Your task to perform on an android device: Go to Yahoo.com Image 0: 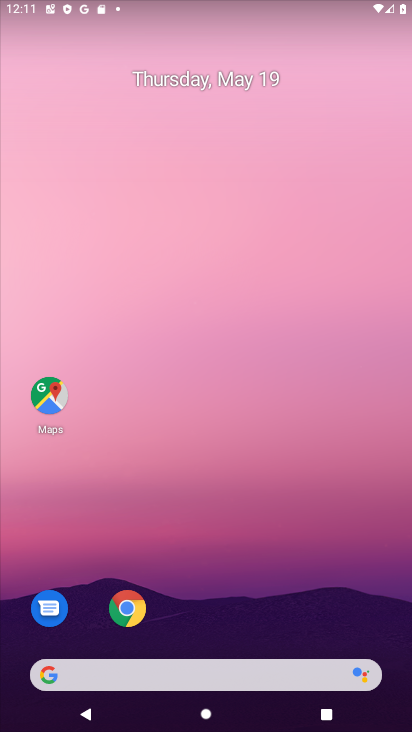
Step 0: click (124, 601)
Your task to perform on an android device: Go to Yahoo.com Image 1: 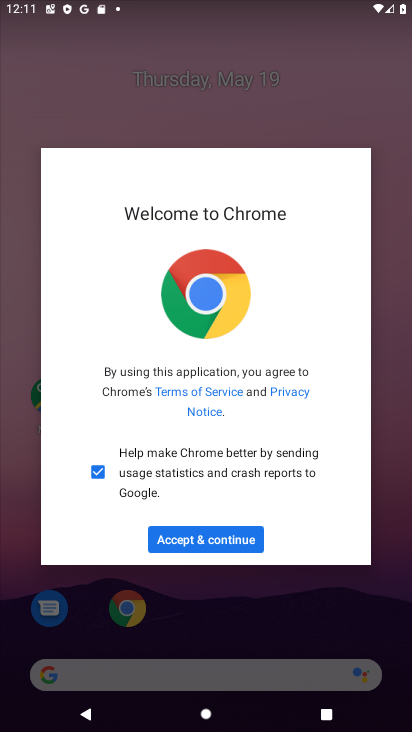
Step 1: click (207, 537)
Your task to perform on an android device: Go to Yahoo.com Image 2: 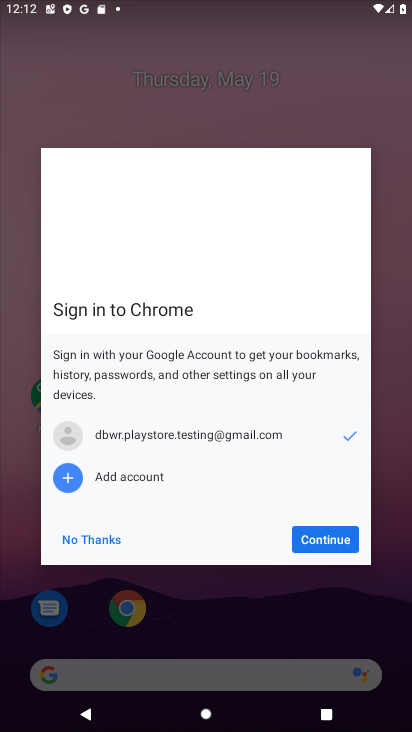
Step 2: click (308, 538)
Your task to perform on an android device: Go to Yahoo.com Image 3: 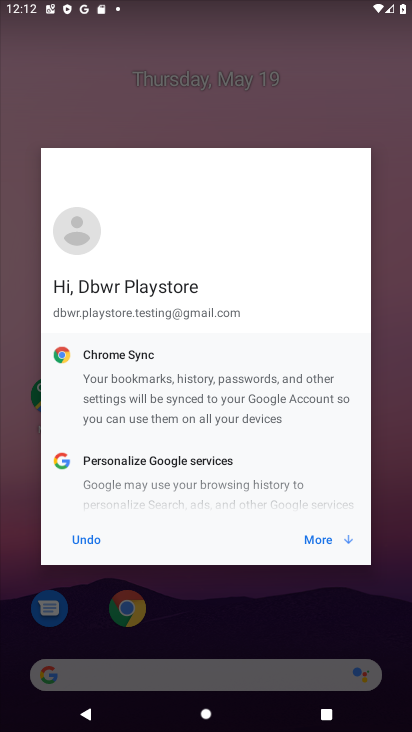
Step 3: click (312, 531)
Your task to perform on an android device: Go to Yahoo.com Image 4: 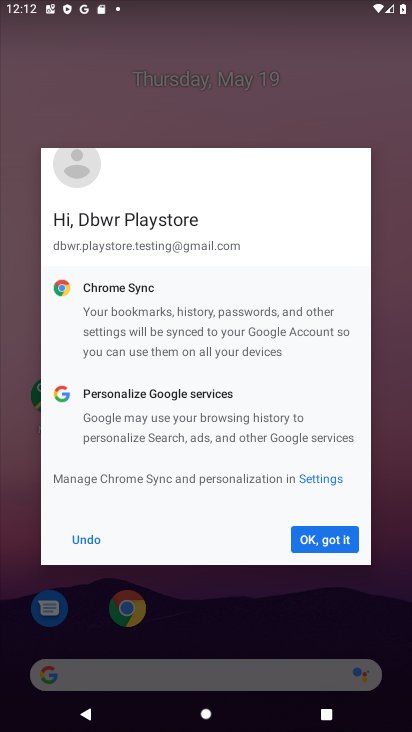
Step 4: click (317, 529)
Your task to perform on an android device: Go to Yahoo.com Image 5: 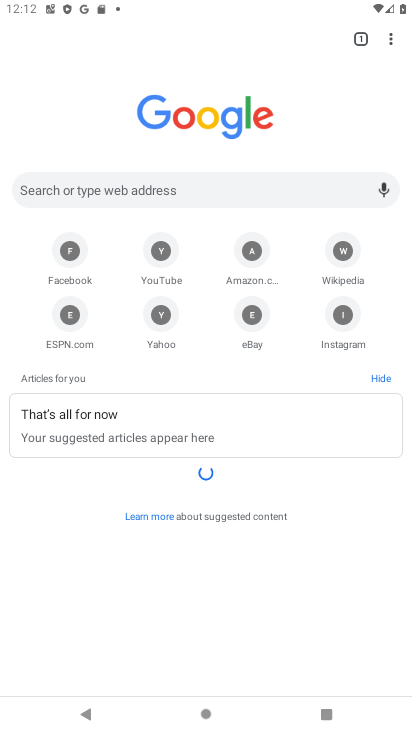
Step 5: click (168, 328)
Your task to perform on an android device: Go to Yahoo.com Image 6: 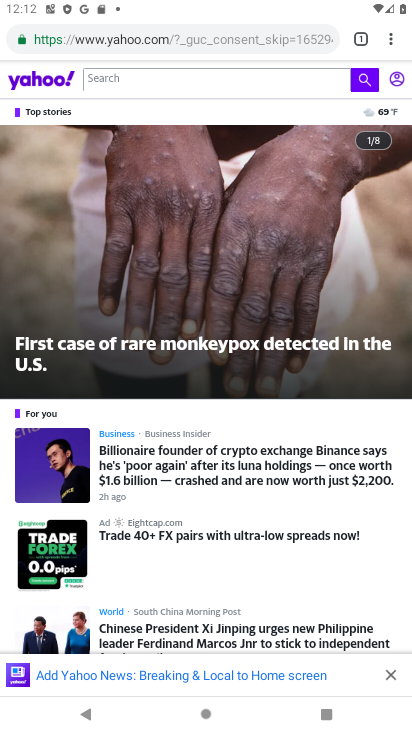
Step 6: task complete